Your task to perform on an android device: visit the assistant section in the google photos Image 0: 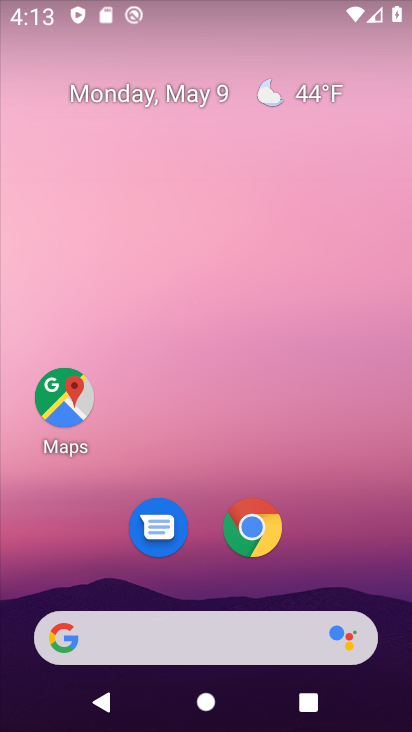
Step 0: drag from (200, 578) to (357, 35)
Your task to perform on an android device: visit the assistant section in the google photos Image 1: 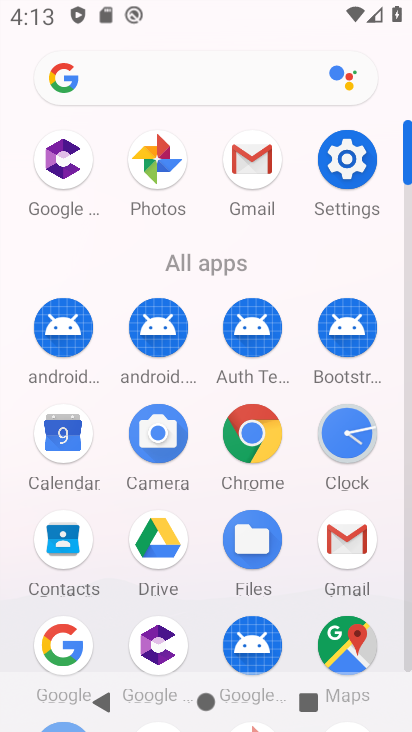
Step 1: click (166, 148)
Your task to perform on an android device: visit the assistant section in the google photos Image 2: 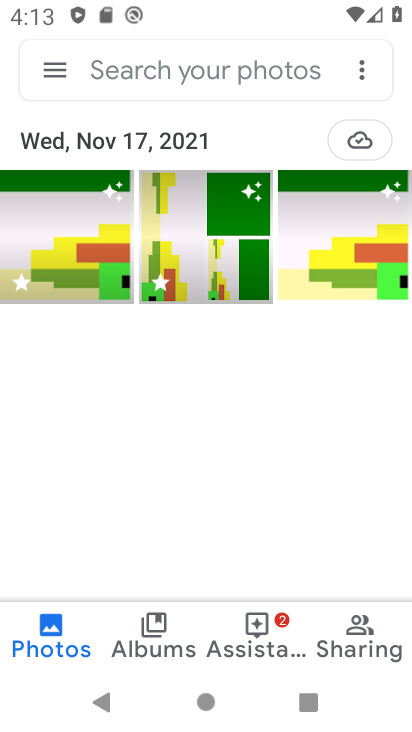
Step 2: click (272, 634)
Your task to perform on an android device: visit the assistant section in the google photos Image 3: 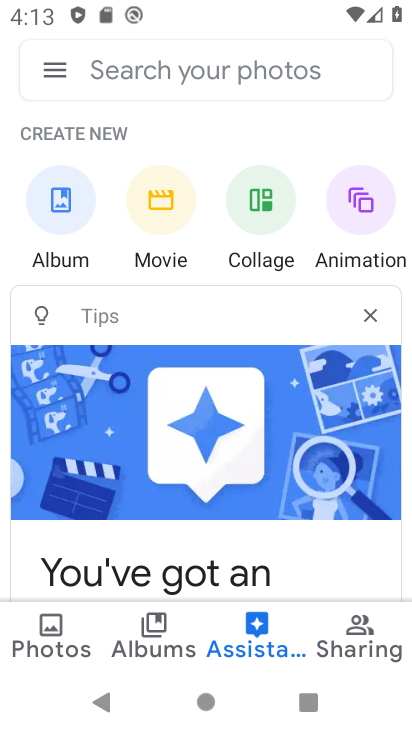
Step 3: task complete